Your task to perform on an android device: turn pop-ups on in chrome Image 0: 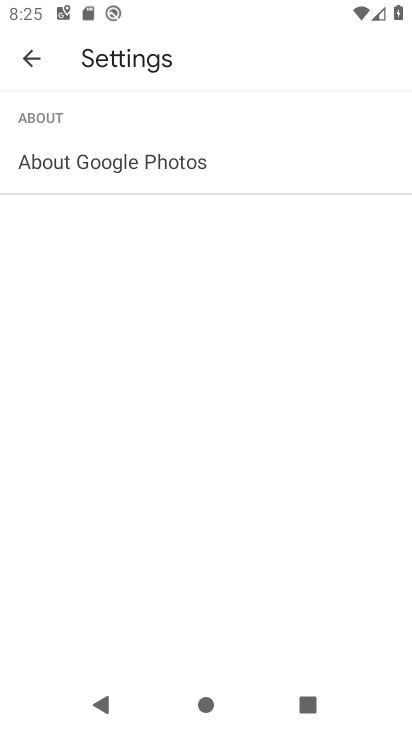
Step 0: drag from (396, 602) to (379, 552)
Your task to perform on an android device: turn pop-ups on in chrome Image 1: 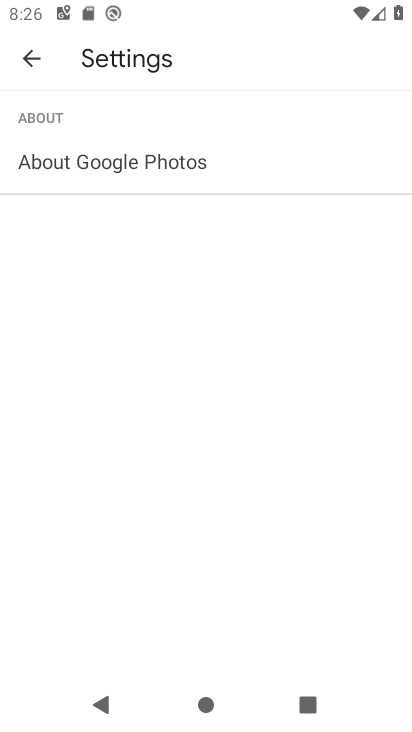
Step 1: press home button
Your task to perform on an android device: turn pop-ups on in chrome Image 2: 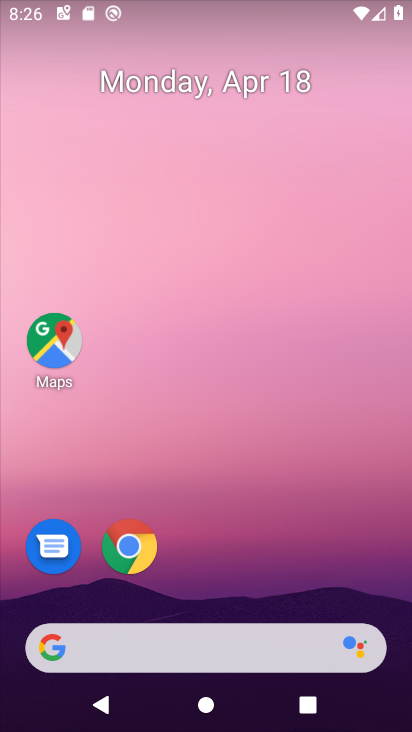
Step 2: drag from (303, 555) to (250, 236)
Your task to perform on an android device: turn pop-ups on in chrome Image 3: 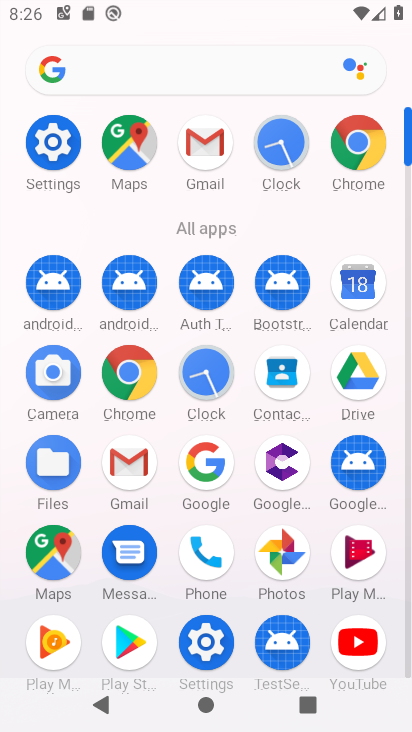
Step 3: click (138, 391)
Your task to perform on an android device: turn pop-ups on in chrome Image 4: 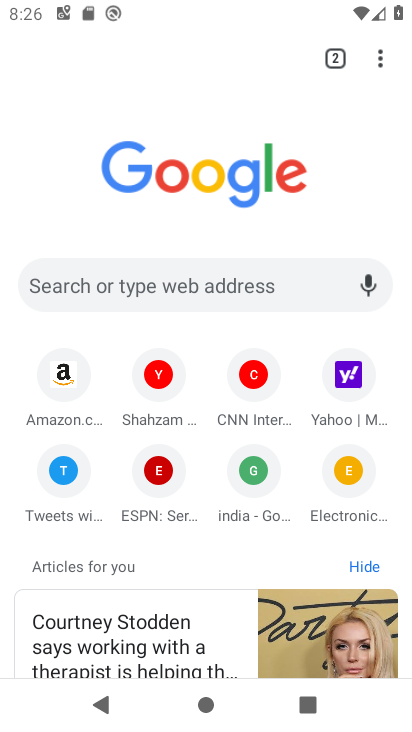
Step 4: drag from (379, 66) to (245, 490)
Your task to perform on an android device: turn pop-ups on in chrome Image 5: 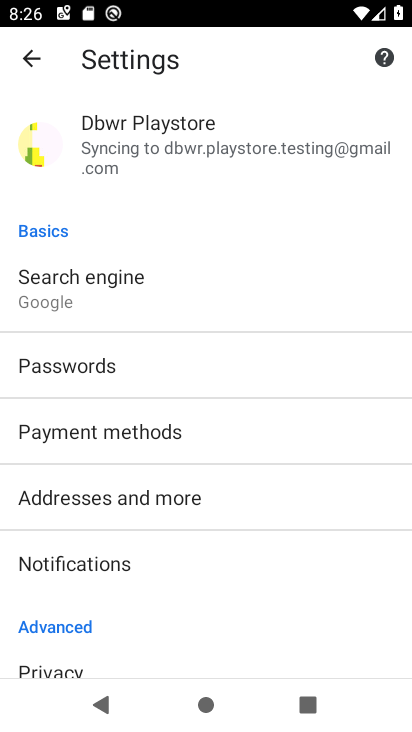
Step 5: drag from (280, 625) to (261, 284)
Your task to perform on an android device: turn pop-ups on in chrome Image 6: 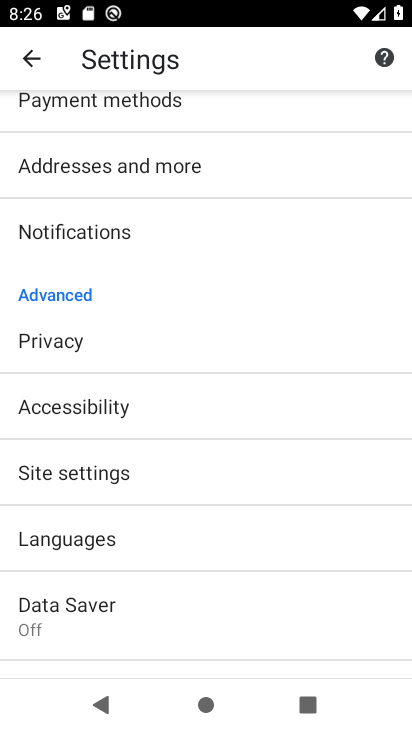
Step 6: click (245, 475)
Your task to perform on an android device: turn pop-ups on in chrome Image 7: 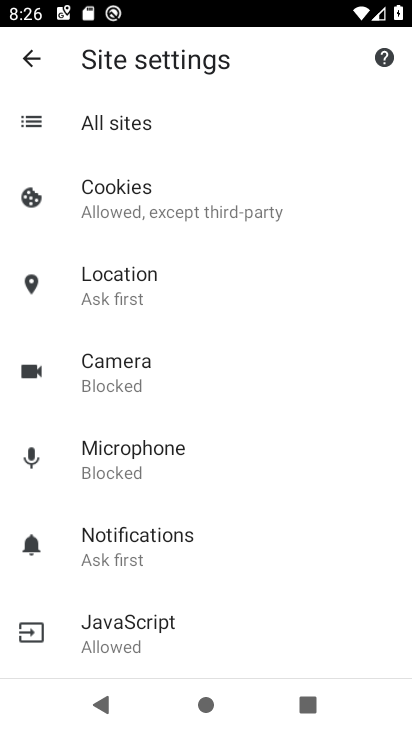
Step 7: drag from (284, 617) to (282, 198)
Your task to perform on an android device: turn pop-ups on in chrome Image 8: 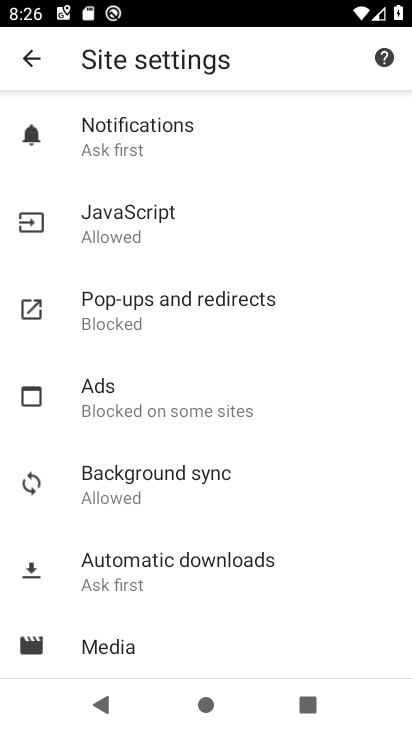
Step 8: click (218, 300)
Your task to perform on an android device: turn pop-ups on in chrome Image 9: 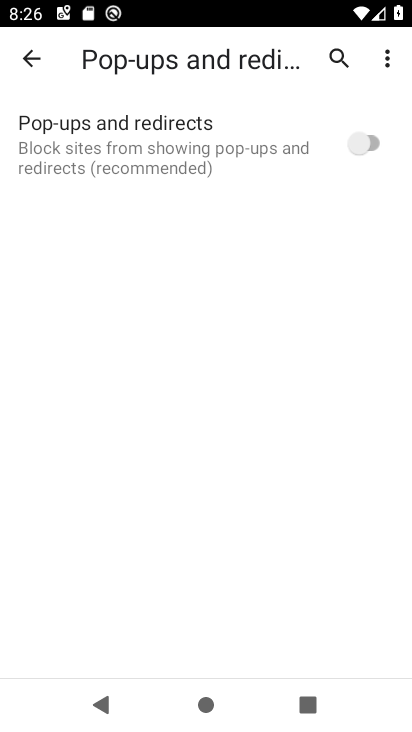
Step 9: click (350, 163)
Your task to perform on an android device: turn pop-ups on in chrome Image 10: 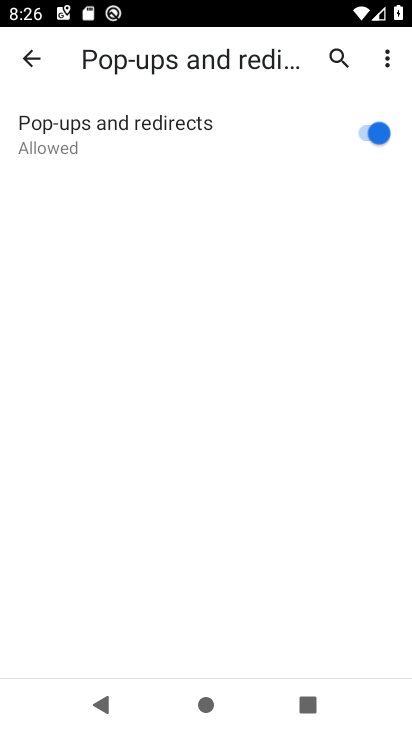
Step 10: task complete